Your task to perform on an android device: Open internet settings Image 0: 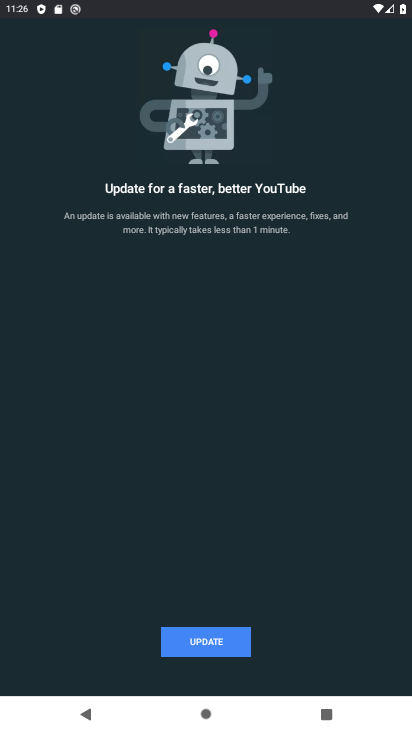
Step 0: press back button
Your task to perform on an android device: Open internet settings Image 1: 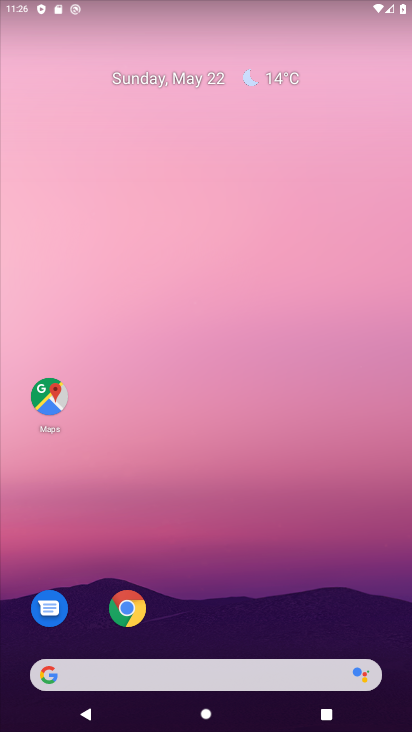
Step 1: drag from (257, 635) to (182, 164)
Your task to perform on an android device: Open internet settings Image 2: 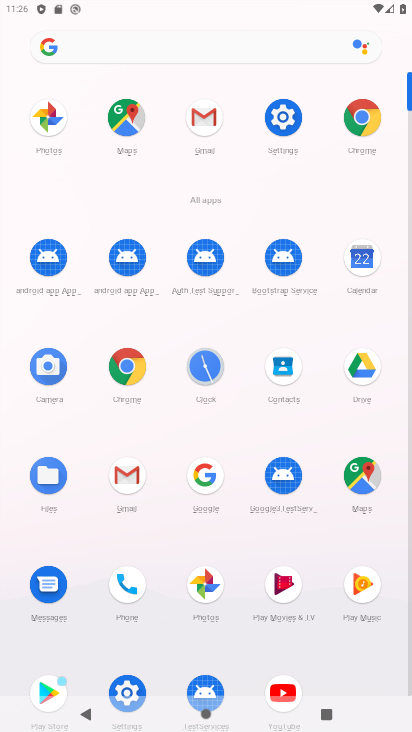
Step 2: click (280, 133)
Your task to perform on an android device: Open internet settings Image 3: 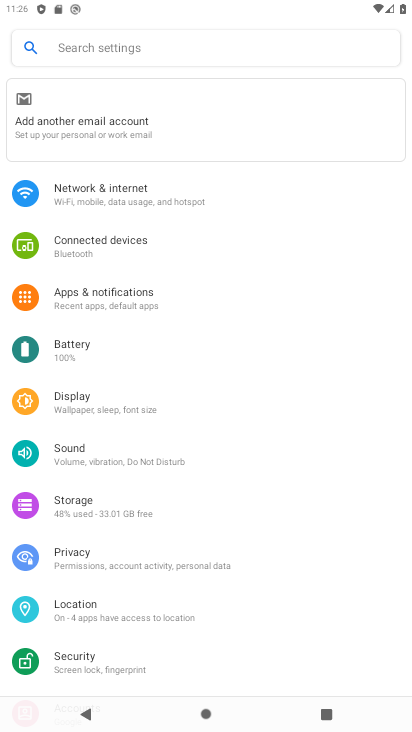
Step 3: click (220, 211)
Your task to perform on an android device: Open internet settings Image 4: 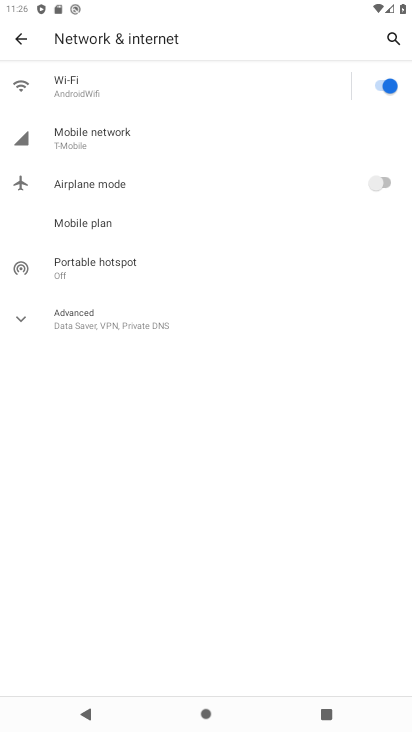
Step 4: task complete